Your task to perform on an android device: set an alarm Image 0: 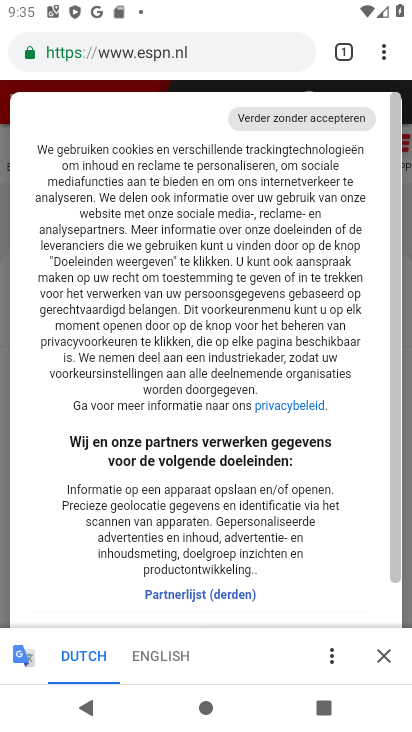
Step 0: press home button
Your task to perform on an android device: set an alarm Image 1: 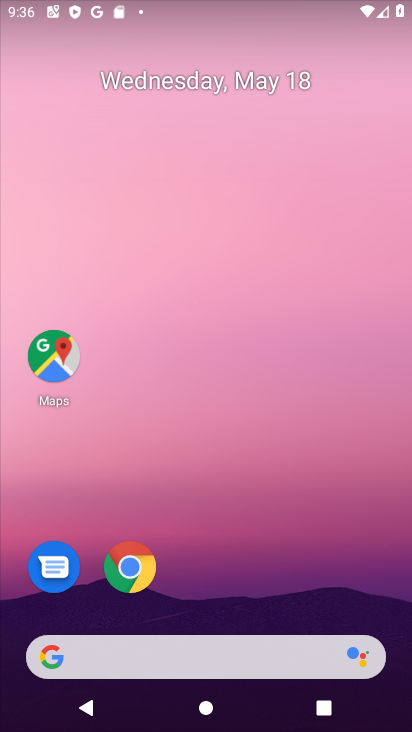
Step 1: drag from (213, 652) to (211, 83)
Your task to perform on an android device: set an alarm Image 2: 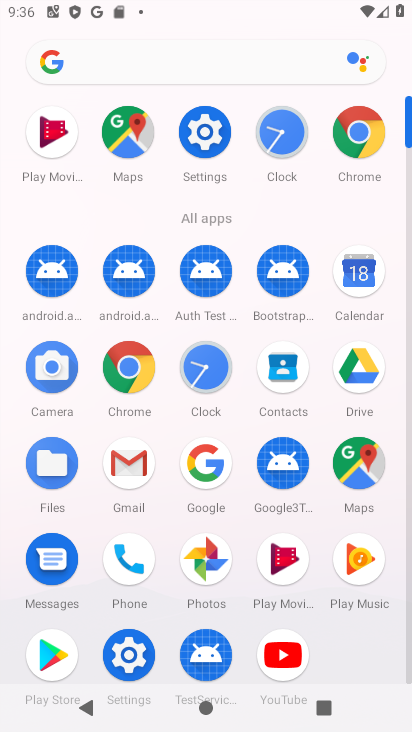
Step 2: click (199, 153)
Your task to perform on an android device: set an alarm Image 3: 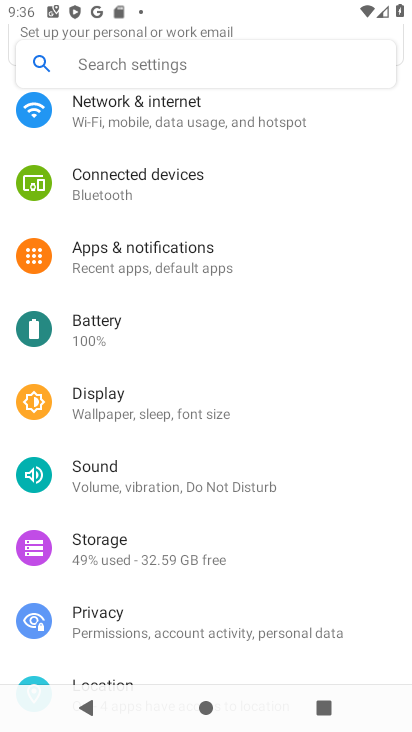
Step 3: press home button
Your task to perform on an android device: set an alarm Image 4: 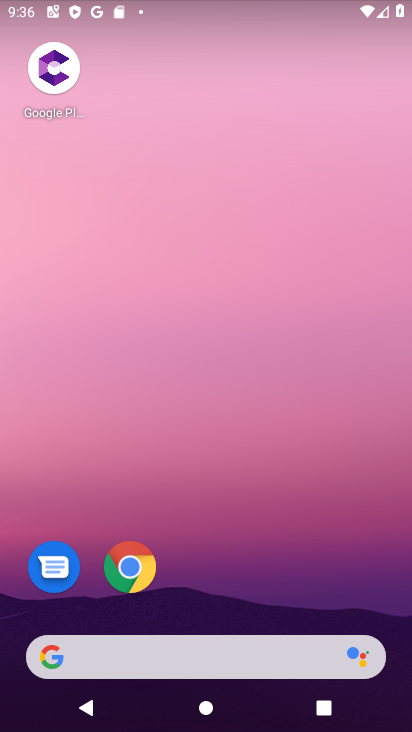
Step 4: drag from (211, 644) to (170, 39)
Your task to perform on an android device: set an alarm Image 5: 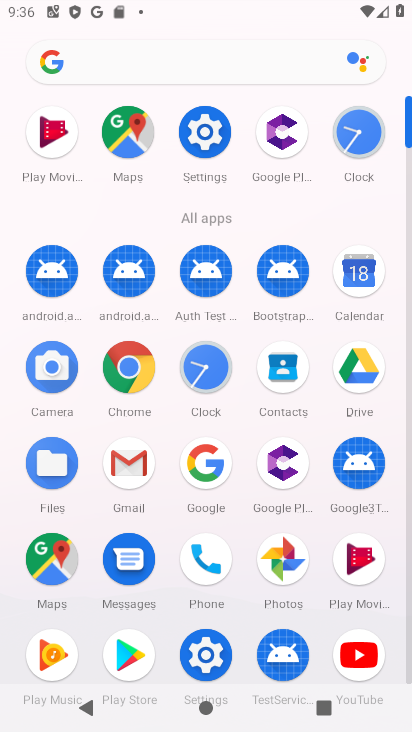
Step 5: click (191, 374)
Your task to perform on an android device: set an alarm Image 6: 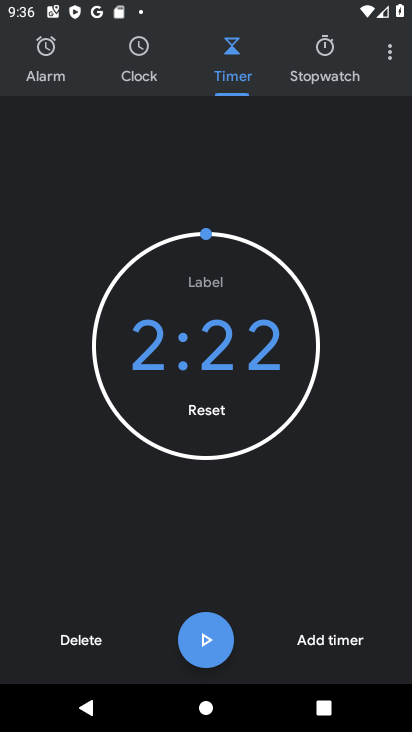
Step 6: click (50, 59)
Your task to perform on an android device: set an alarm Image 7: 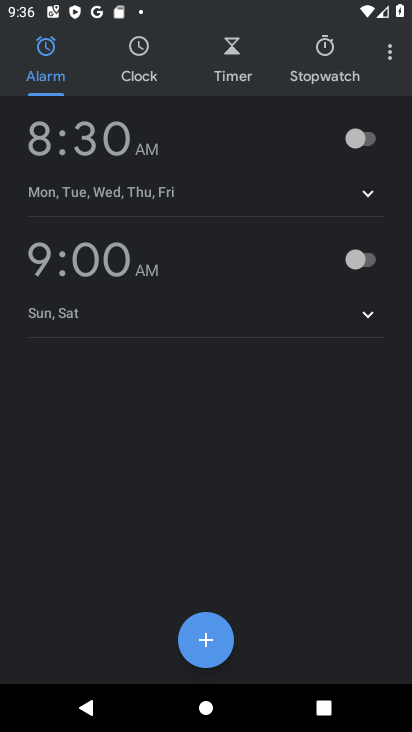
Step 7: click (205, 625)
Your task to perform on an android device: set an alarm Image 8: 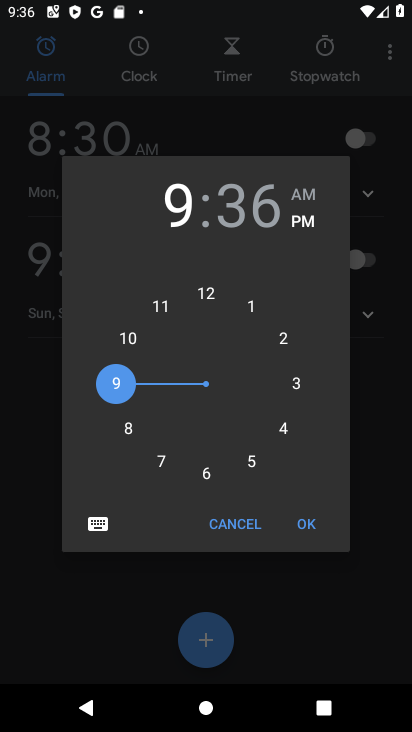
Step 8: click (300, 524)
Your task to perform on an android device: set an alarm Image 9: 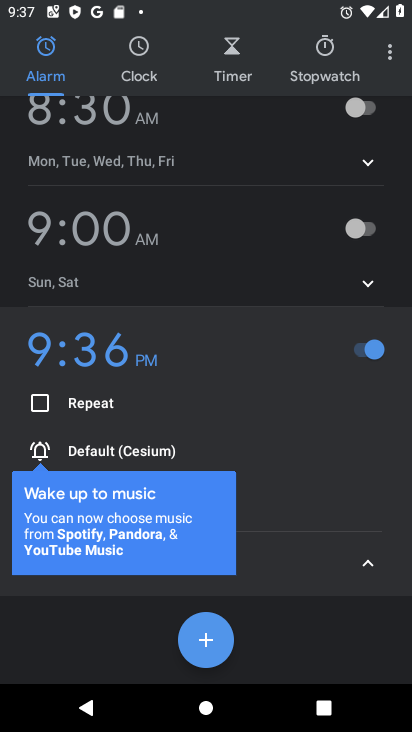
Step 9: task complete